Your task to perform on an android device: Go to battery settings Image 0: 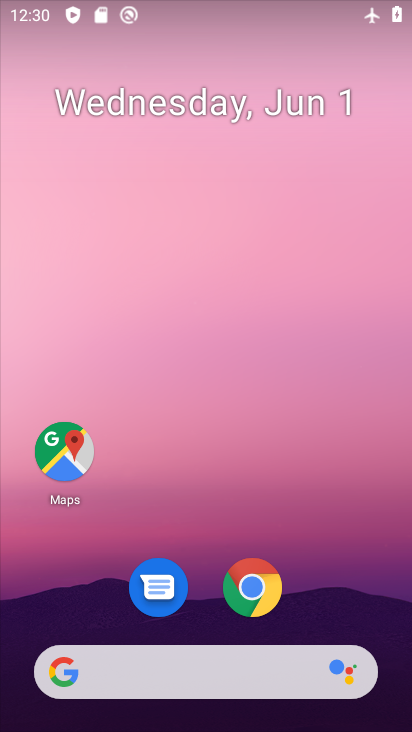
Step 0: drag from (180, 501) to (175, 108)
Your task to perform on an android device: Go to battery settings Image 1: 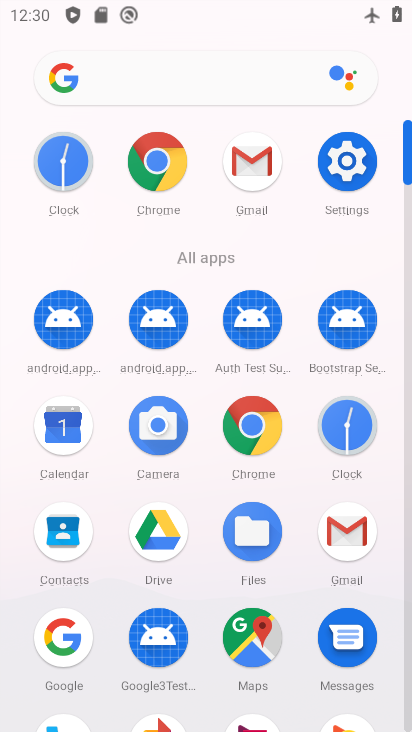
Step 1: click (345, 162)
Your task to perform on an android device: Go to battery settings Image 2: 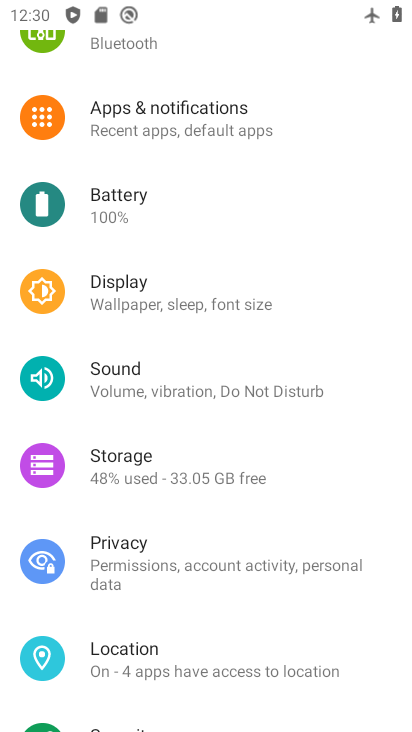
Step 2: click (112, 206)
Your task to perform on an android device: Go to battery settings Image 3: 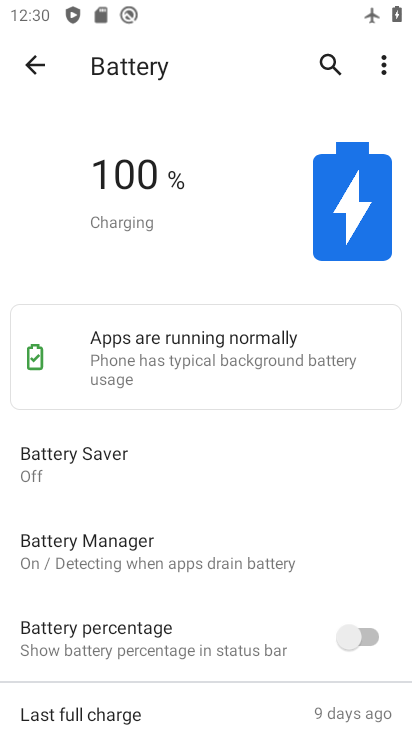
Step 3: task complete